Your task to perform on an android device: Open the calendar and show me this week's events Image 0: 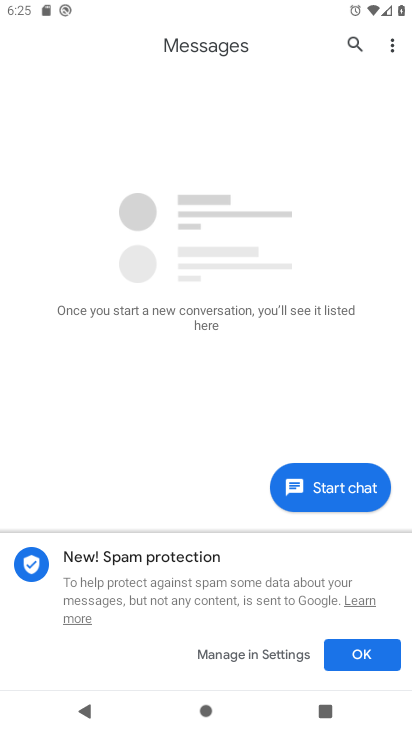
Step 0: drag from (201, 620) to (221, 141)
Your task to perform on an android device: Open the calendar and show me this week's events Image 1: 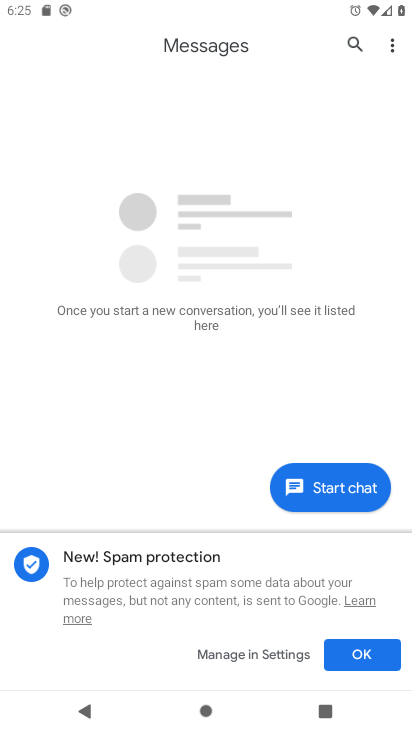
Step 1: press home button
Your task to perform on an android device: Open the calendar and show me this week's events Image 2: 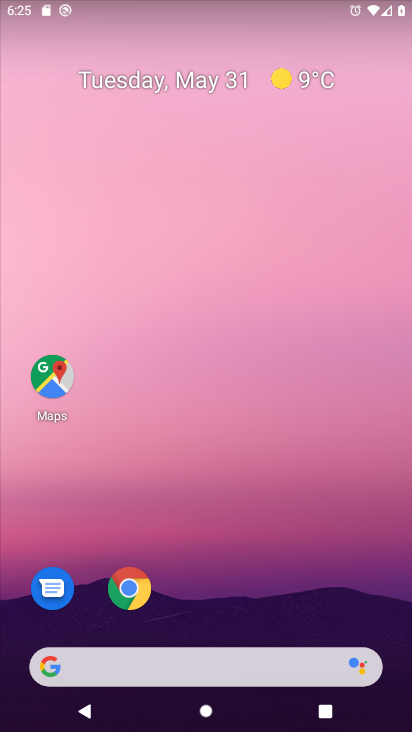
Step 2: drag from (212, 606) to (237, 203)
Your task to perform on an android device: Open the calendar and show me this week's events Image 3: 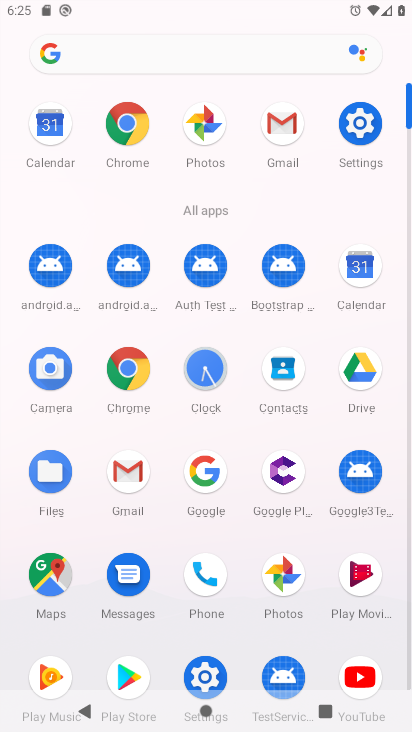
Step 3: click (350, 290)
Your task to perform on an android device: Open the calendar and show me this week's events Image 4: 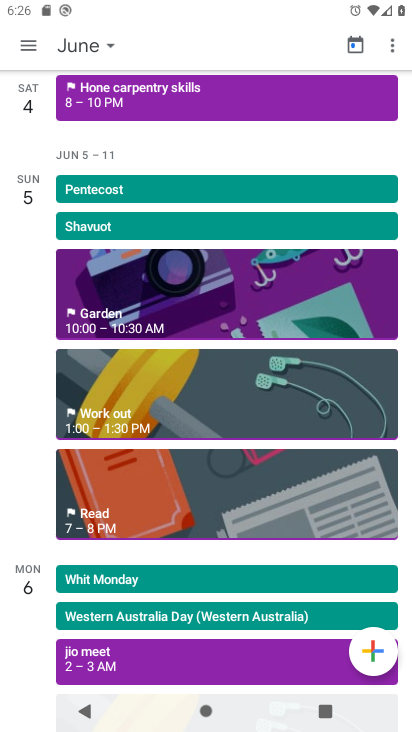
Step 4: click (26, 52)
Your task to perform on an android device: Open the calendar and show me this week's events Image 5: 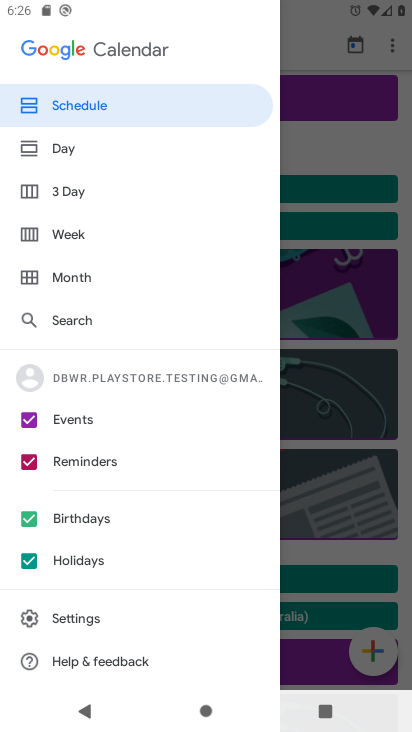
Step 5: click (84, 229)
Your task to perform on an android device: Open the calendar and show me this week's events Image 6: 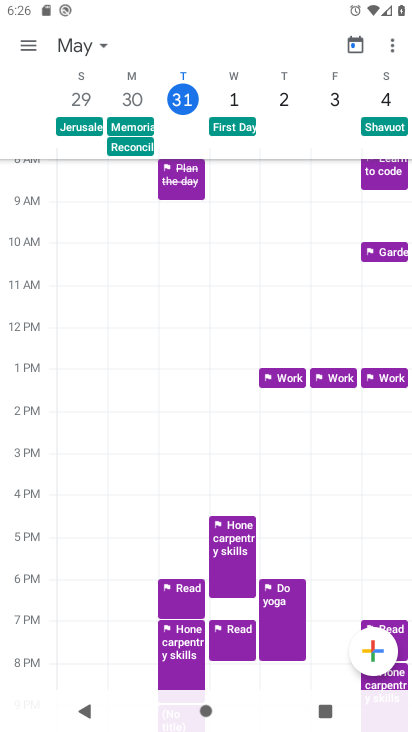
Step 6: task complete